Your task to perform on an android device: Open network settings Image 0: 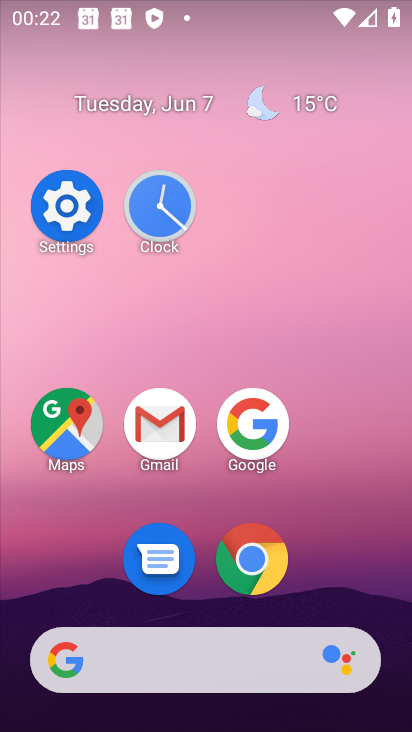
Step 0: click (83, 216)
Your task to perform on an android device: Open network settings Image 1: 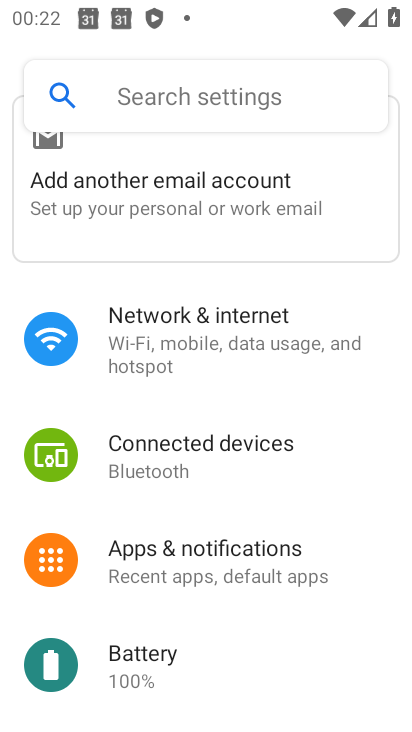
Step 1: click (226, 328)
Your task to perform on an android device: Open network settings Image 2: 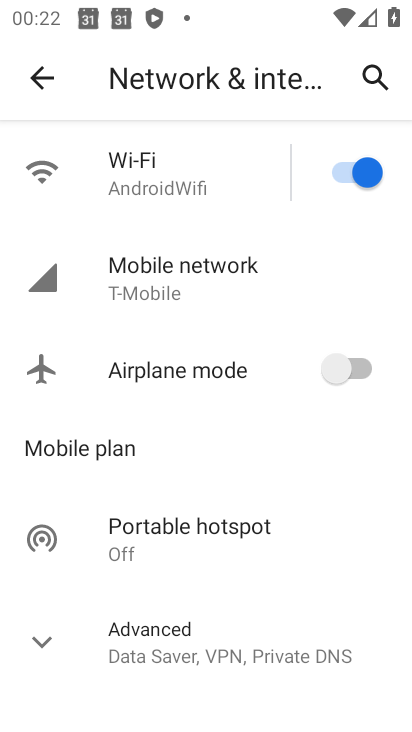
Step 2: task complete